Your task to perform on an android device: empty trash in the gmail app Image 0: 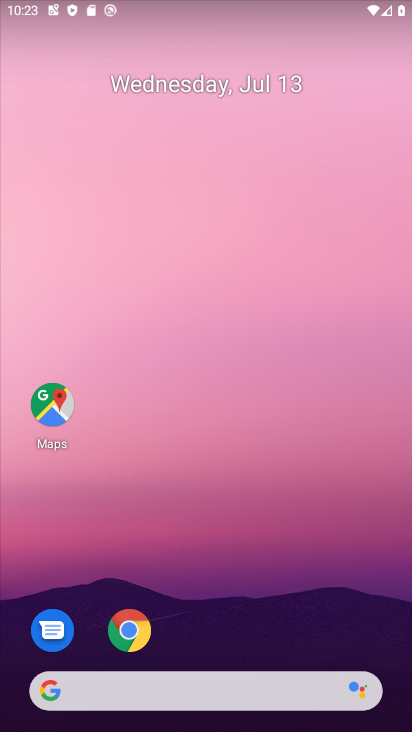
Step 0: drag from (294, 596) to (310, 20)
Your task to perform on an android device: empty trash in the gmail app Image 1: 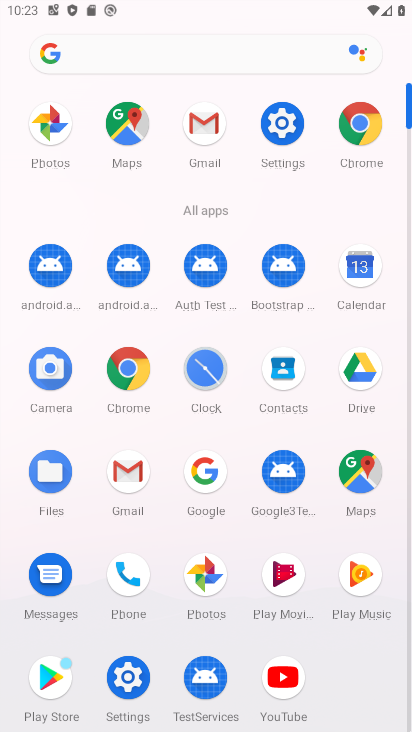
Step 1: click (203, 174)
Your task to perform on an android device: empty trash in the gmail app Image 2: 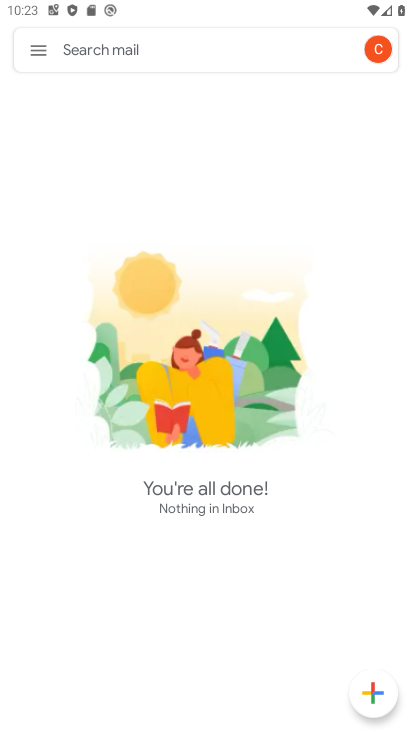
Step 2: click (40, 54)
Your task to perform on an android device: empty trash in the gmail app Image 3: 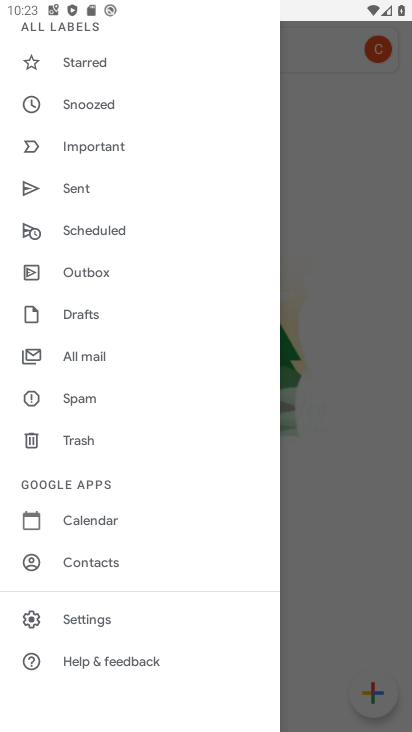
Step 3: click (79, 445)
Your task to perform on an android device: empty trash in the gmail app Image 4: 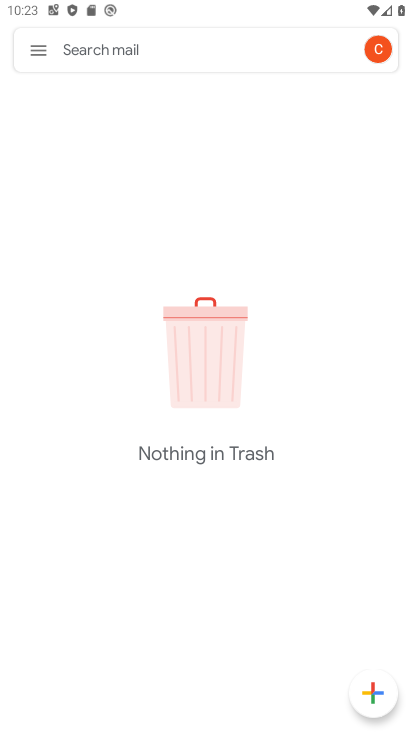
Step 4: task complete